Your task to perform on an android device: Play the last video I watched on Youtube Image 0: 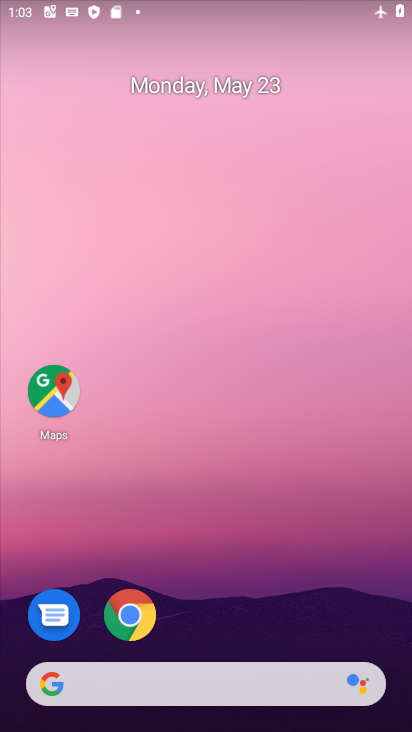
Step 0: drag from (203, 731) to (176, 38)
Your task to perform on an android device: Play the last video I watched on Youtube Image 1: 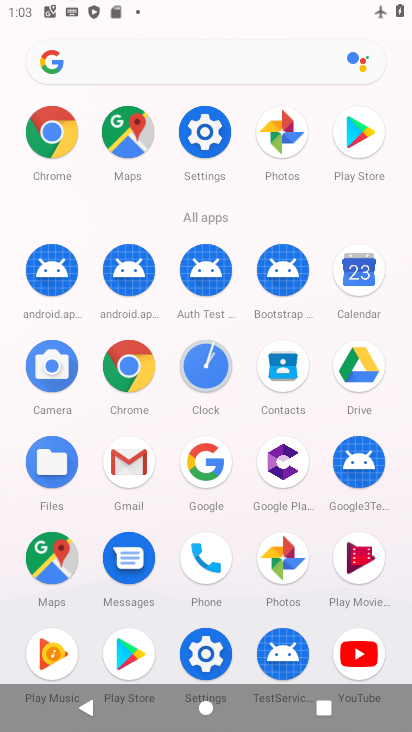
Step 1: click (369, 652)
Your task to perform on an android device: Play the last video I watched on Youtube Image 2: 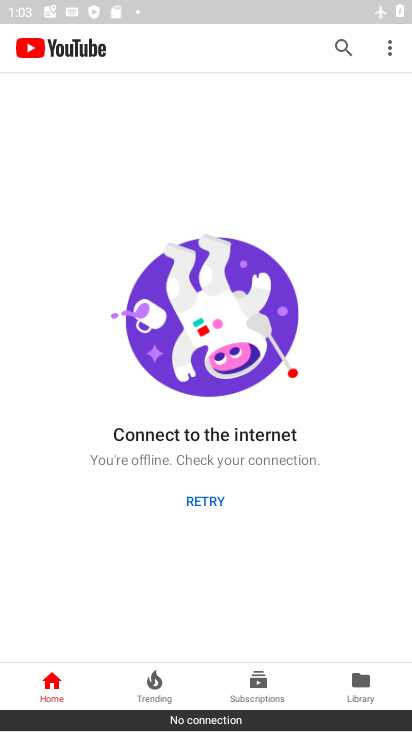
Step 2: task complete